Your task to perform on an android device: turn notification dots on Image 0: 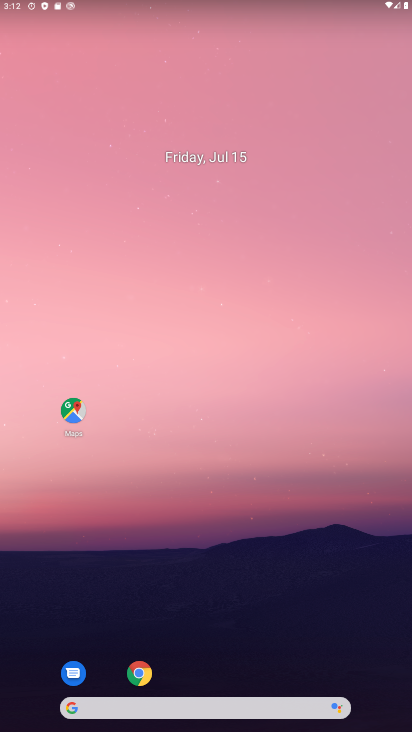
Step 0: drag from (209, 694) to (290, 74)
Your task to perform on an android device: turn notification dots on Image 1: 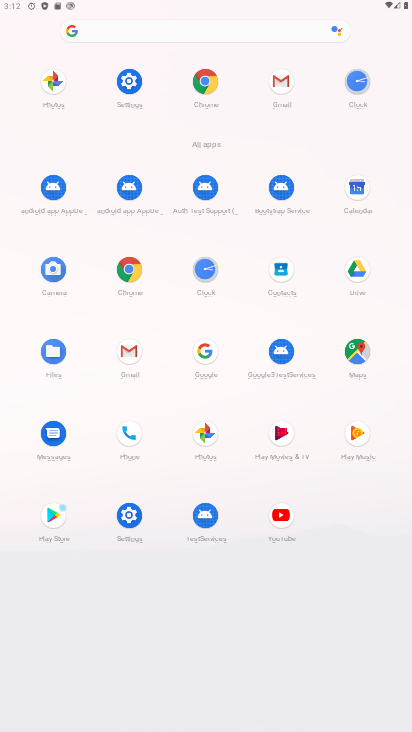
Step 1: click (124, 520)
Your task to perform on an android device: turn notification dots on Image 2: 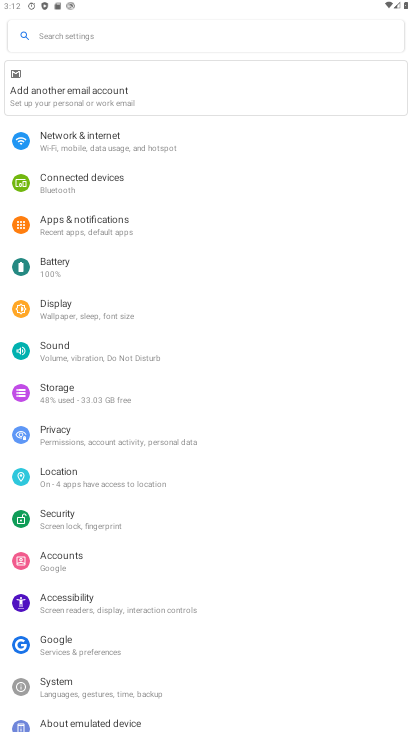
Step 2: click (81, 230)
Your task to perform on an android device: turn notification dots on Image 3: 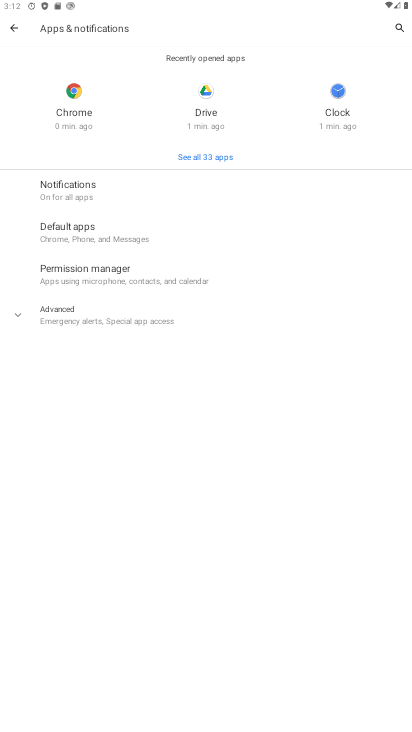
Step 3: click (154, 194)
Your task to perform on an android device: turn notification dots on Image 4: 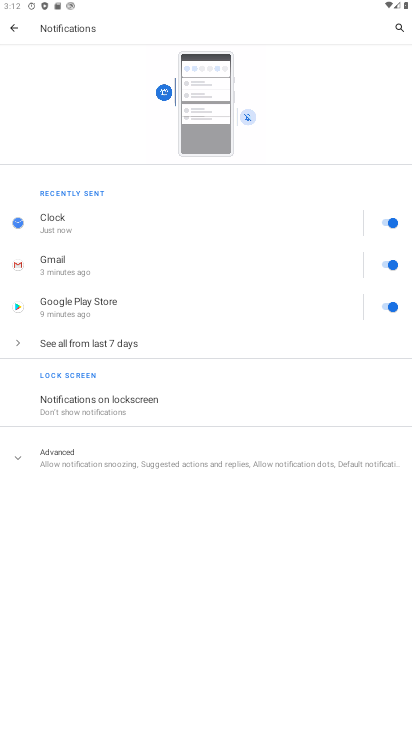
Step 4: click (118, 449)
Your task to perform on an android device: turn notification dots on Image 5: 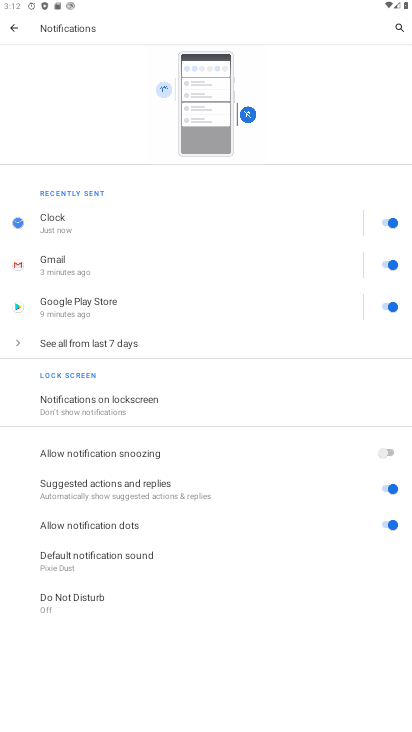
Step 5: task complete